Your task to perform on an android device: Open Google Image 0: 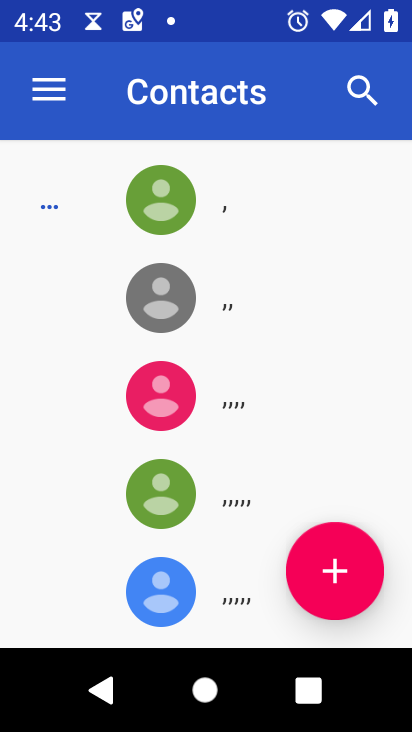
Step 0: press home button
Your task to perform on an android device: Open Google Image 1: 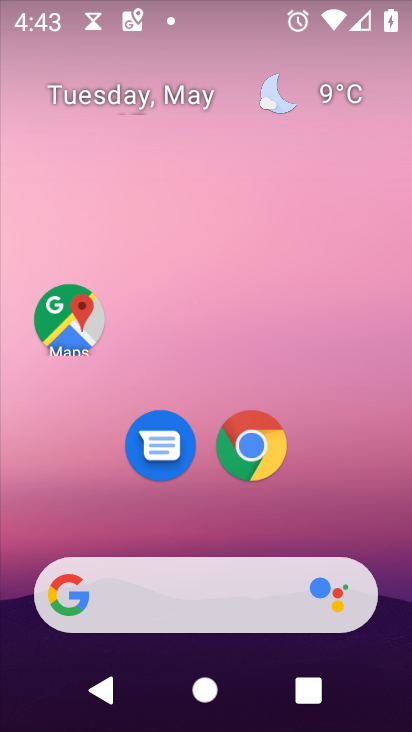
Step 1: drag from (219, 571) to (319, 80)
Your task to perform on an android device: Open Google Image 2: 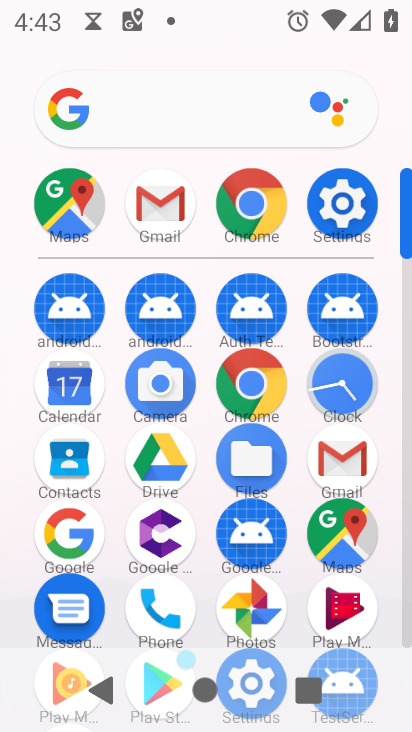
Step 2: click (77, 525)
Your task to perform on an android device: Open Google Image 3: 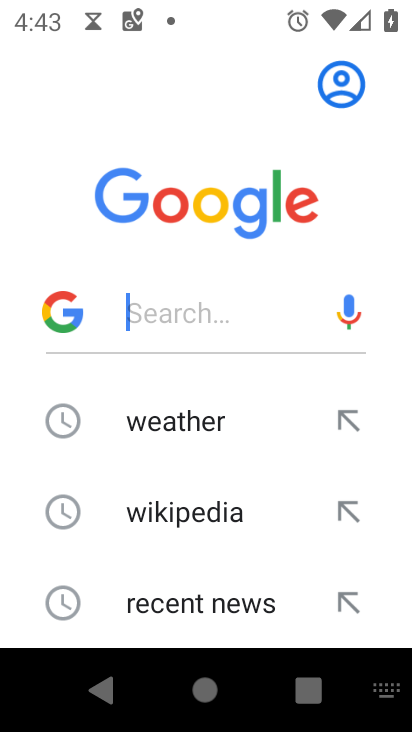
Step 3: press back button
Your task to perform on an android device: Open Google Image 4: 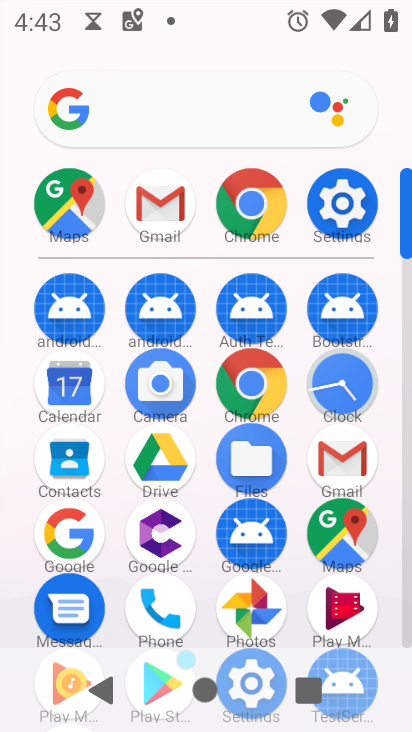
Step 4: click (56, 540)
Your task to perform on an android device: Open Google Image 5: 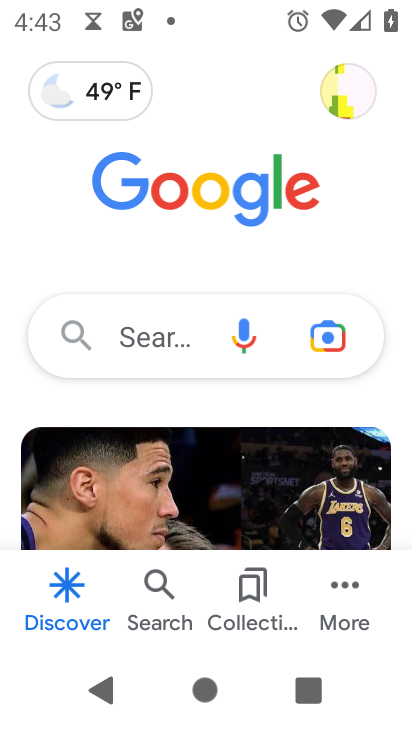
Step 5: task complete